Your task to perform on an android device: set default search engine in the chrome app Image 0: 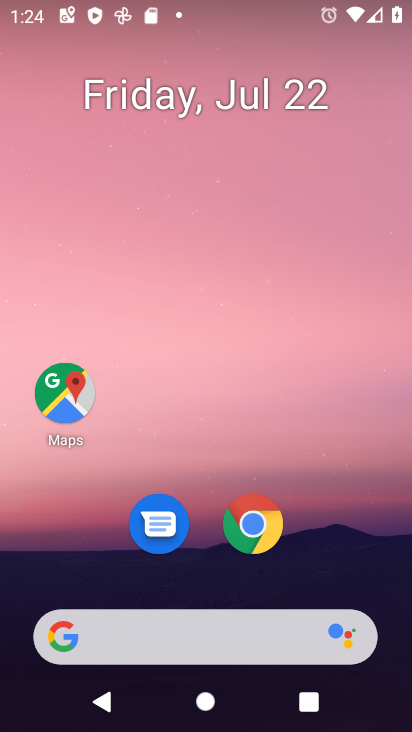
Step 0: press home button
Your task to perform on an android device: set default search engine in the chrome app Image 1: 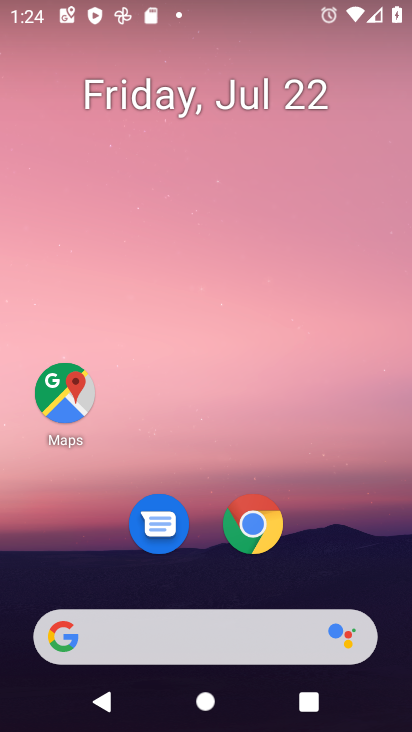
Step 1: click (248, 533)
Your task to perform on an android device: set default search engine in the chrome app Image 2: 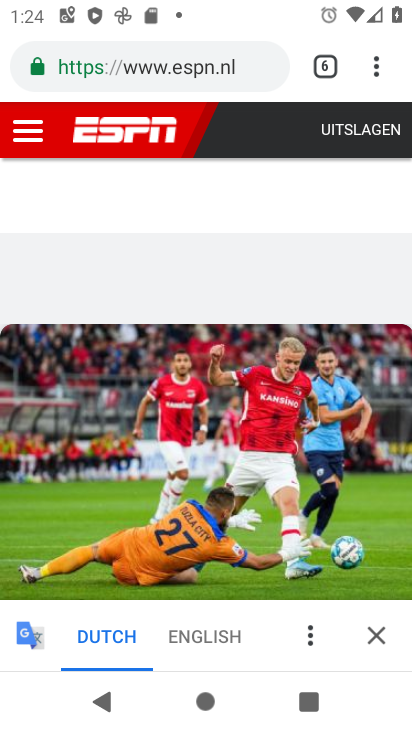
Step 2: drag from (377, 66) to (170, 528)
Your task to perform on an android device: set default search engine in the chrome app Image 3: 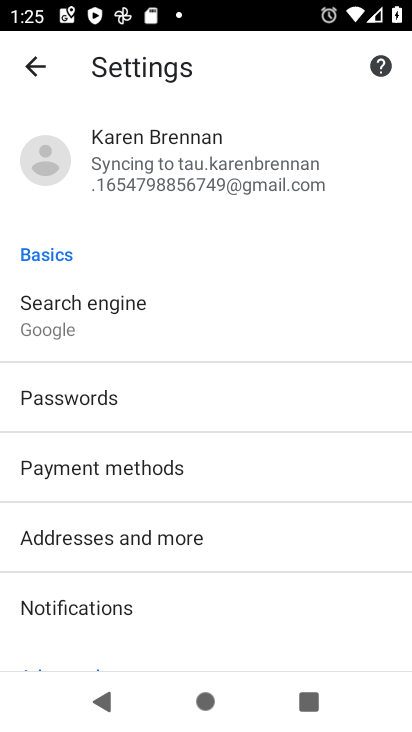
Step 3: click (94, 319)
Your task to perform on an android device: set default search engine in the chrome app Image 4: 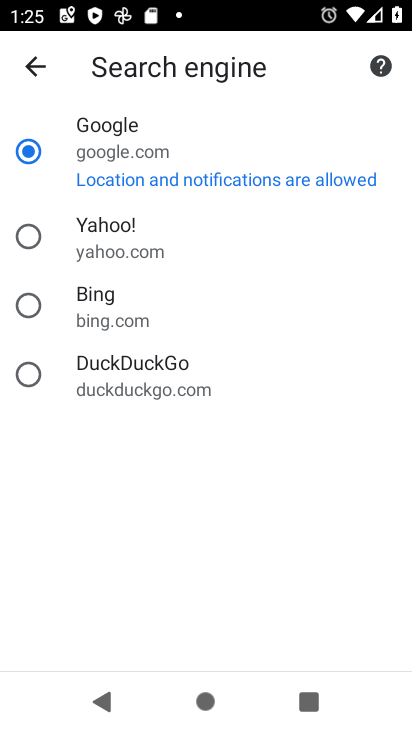
Step 4: click (26, 231)
Your task to perform on an android device: set default search engine in the chrome app Image 5: 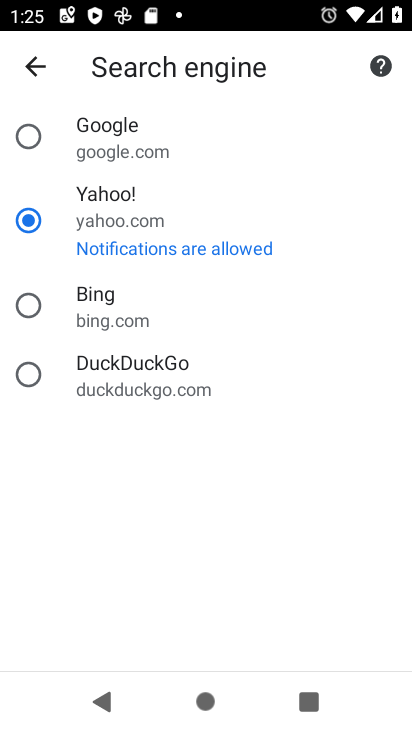
Step 5: task complete